Your task to perform on an android device: Open notification settings Image 0: 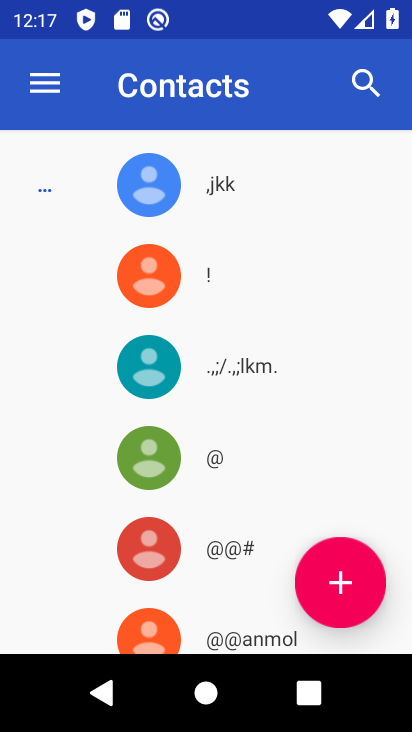
Step 0: press home button
Your task to perform on an android device: Open notification settings Image 1: 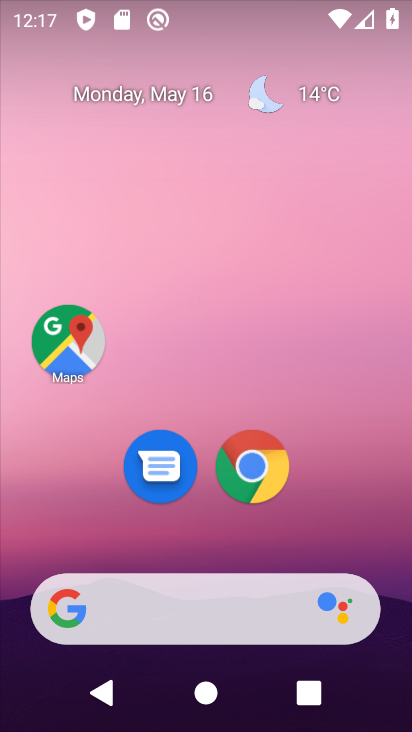
Step 1: drag from (7, 608) to (227, 19)
Your task to perform on an android device: Open notification settings Image 2: 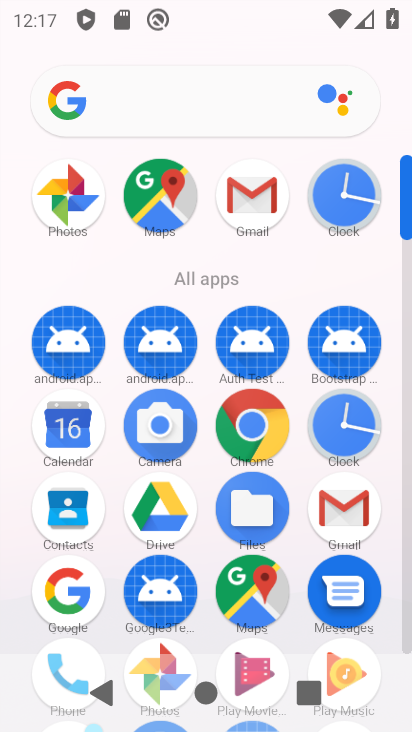
Step 2: drag from (194, 335) to (219, 238)
Your task to perform on an android device: Open notification settings Image 3: 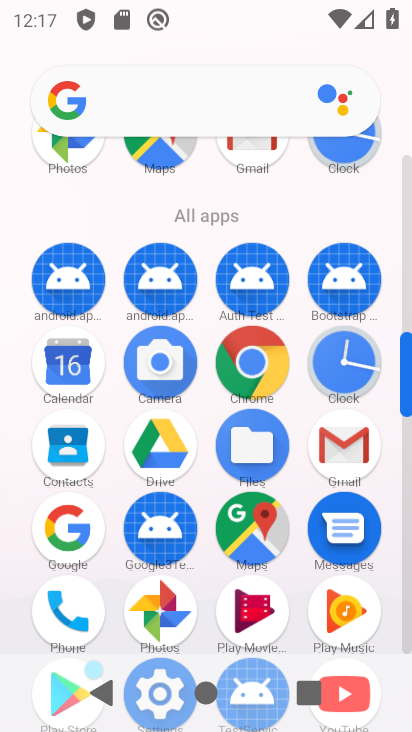
Step 3: drag from (168, 658) to (272, 350)
Your task to perform on an android device: Open notification settings Image 4: 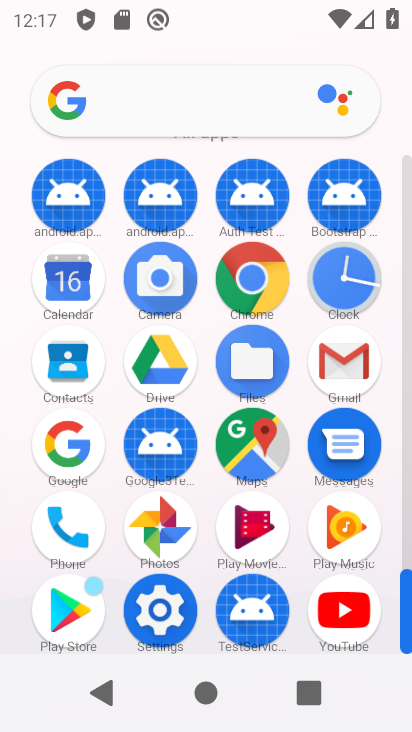
Step 4: click (172, 618)
Your task to perform on an android device: Open notification settings Image 5: 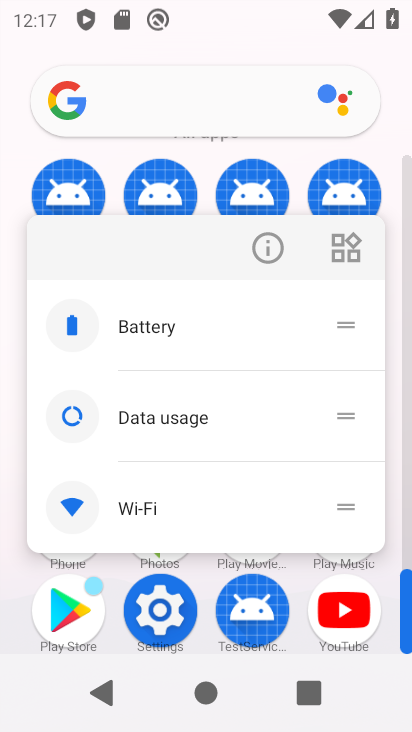
Step 5: click (172, 611)
Your task to perform on an android device: Open notification settings Image 6: 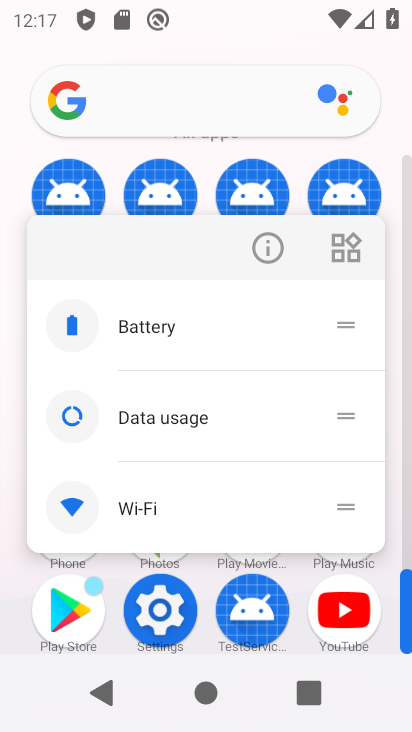
Step 6: click (167, 590)
Your task to perform on an android device: Open notification settings Image 7: 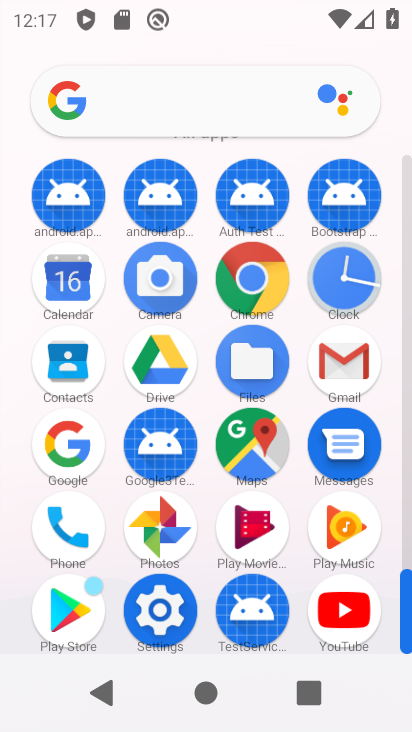
Step 7: click (168, 602)
Your task to perform on an android device: Open notification settings Image 8: 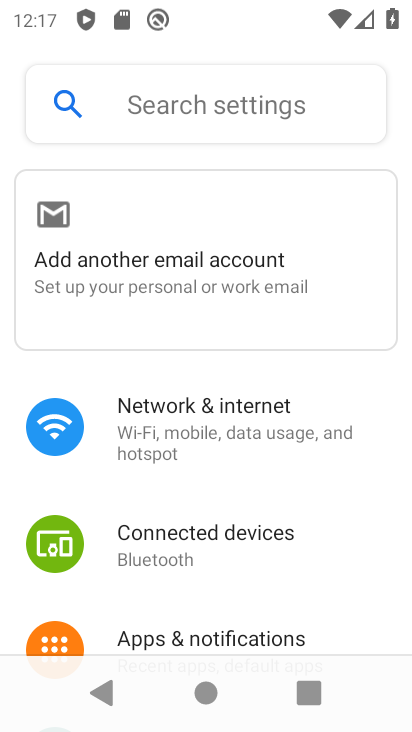
Step 8: drag from (166, 562) to (302, 246)
Your task to perform on an android device: Open notification settings Image 9: 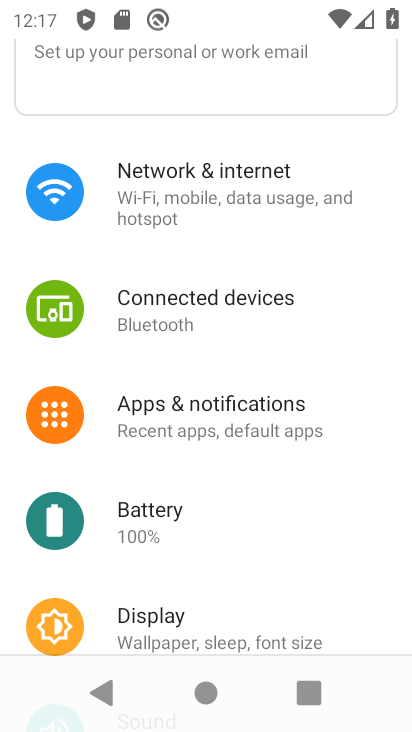
Step 9: click (230, 404)
Your task to perform on an android device: Open notification settings Image 10: 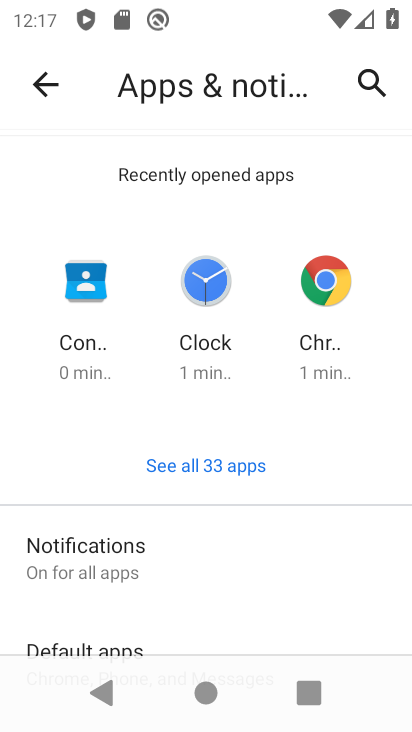
Step 10: task complete